Your task to perform on an android device: turn off notifications in google photos Image 0: 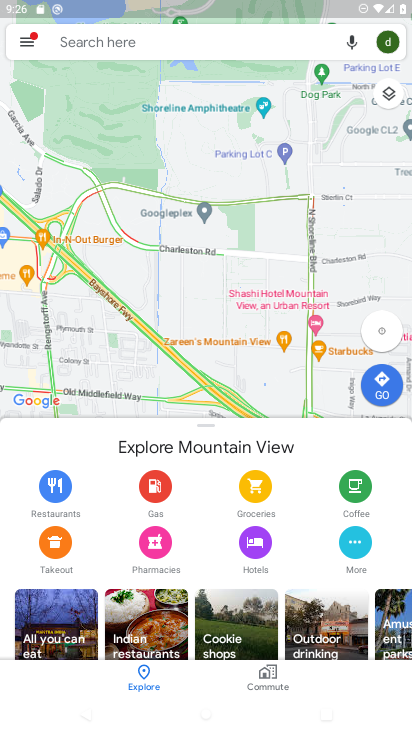
Step 0: press home button
Your task to perform on an android device: turn off notifications in google photos Image 1: 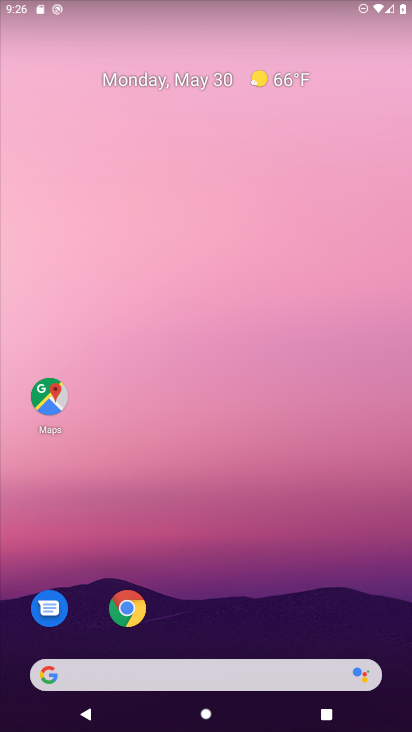
Step 1: drag from (236, 723) to (220, 578)
Your task to perform on an android device: turn off notifications in google photos Image 2: 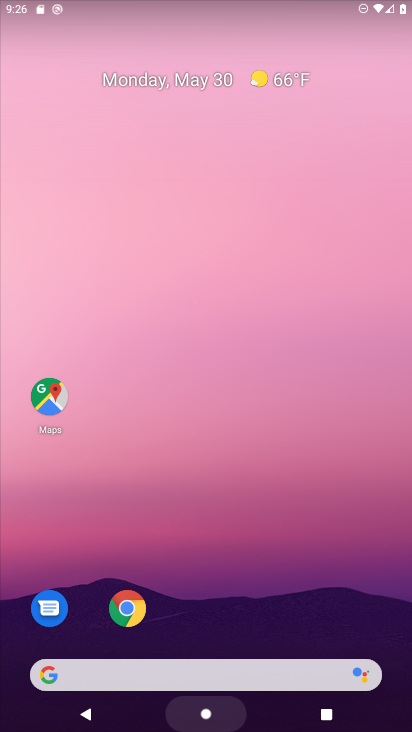
Step 2: click (193, 96)
Your task to perform on an android device: turn off notifications in google photos Image 3: 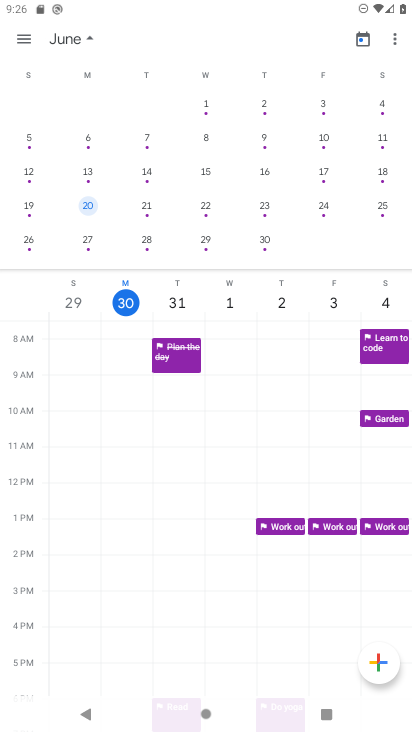
Step 3: press home button
Your task to perform on an android device: turn off notifications in google photos Image 4: 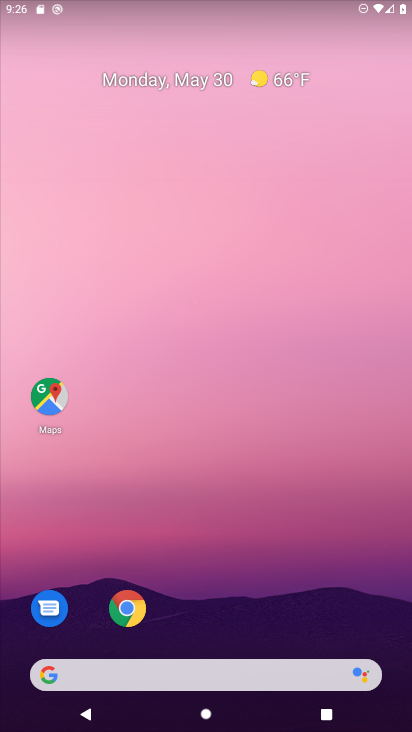
Step 4: drag from (243, 725) to (226, 572)
Your task to perform on an android device: turn off notifications in google photos Image 5: 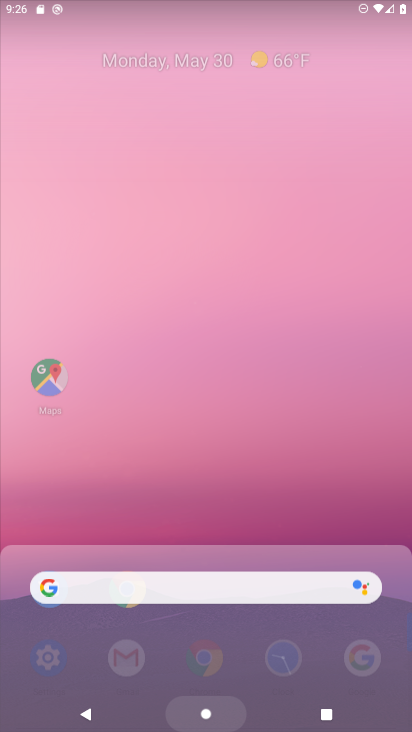
Step 5: drag from (204, 260) to (199, 33)
Your task to perform on an android device: turn off notifications in google photos Image 6: 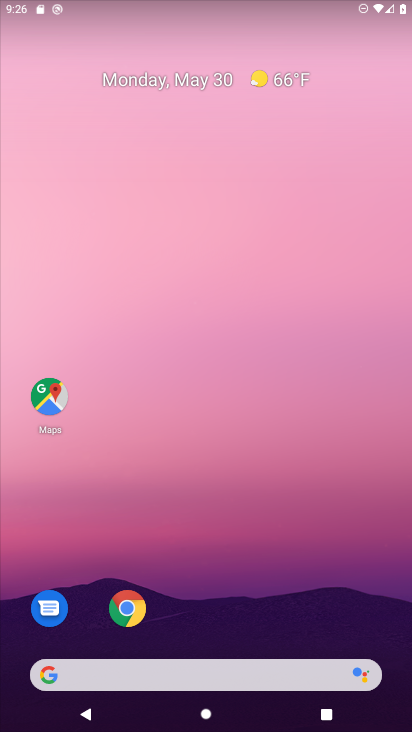
Step 6: drag from (230, 712) to (211, 26)
Your task to perform on an android device: turn off notifications in google photos Image 7: 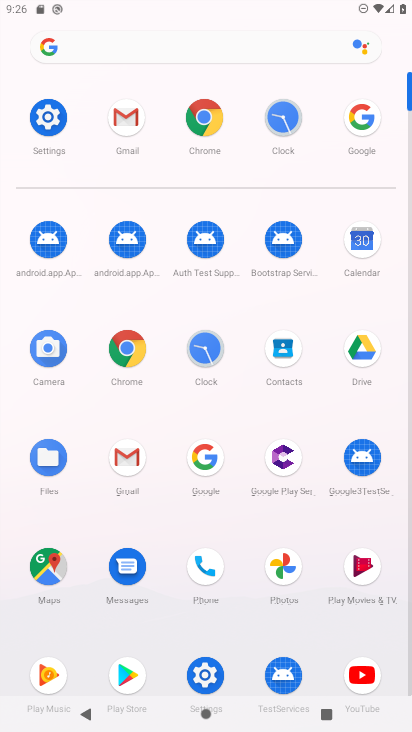
Step 7: click (286, 561)
Your task to perform on an android device: turn off notifications in google photos Image 8: 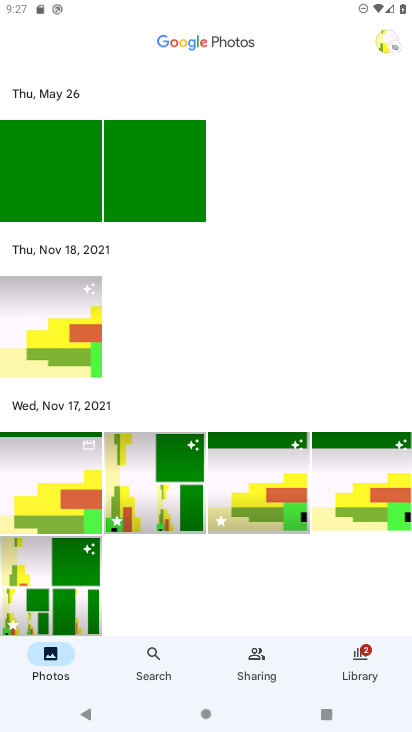
Step 8: click (42, 185)
Your task to perform on an android device: turn off notifications in google photos Image 9: 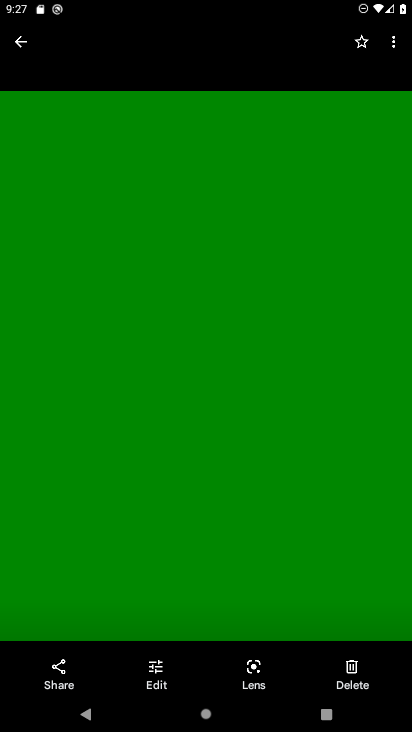
Step 9: task complete